Your task to perform on an android device: Do I have any events today? Image 0: 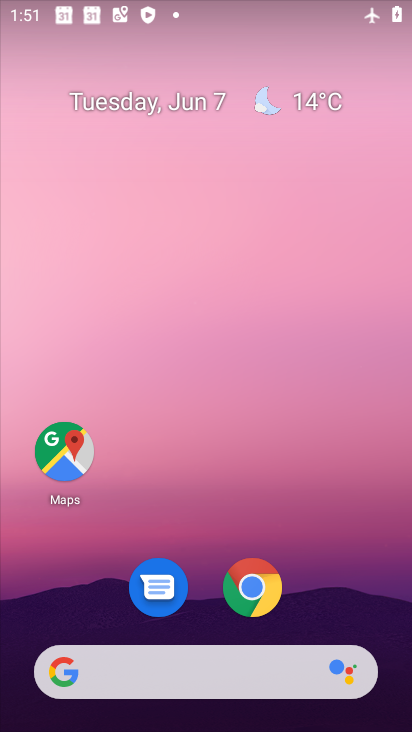
Step 0: drag from (186, 361) to (186, 276)
Your task to perform on an android device: Do I have any events today? Image 1: 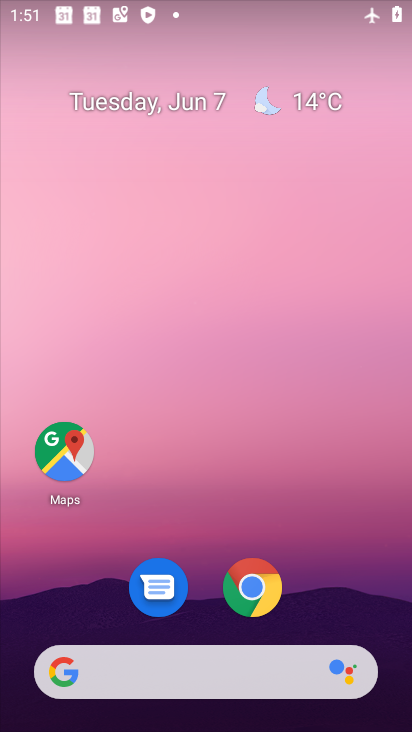
Step 1: drag from (186, 670) to (237, 171)
Your task to perform on an android device: Do I have any events today? Image 2: 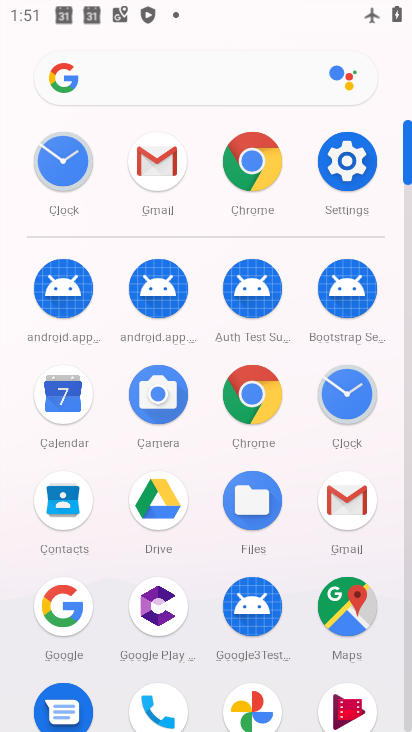
Step 2: drag from (202, 598) to (232, 162)
Your task to perform on an android device: Do I have any events today? Image 3: 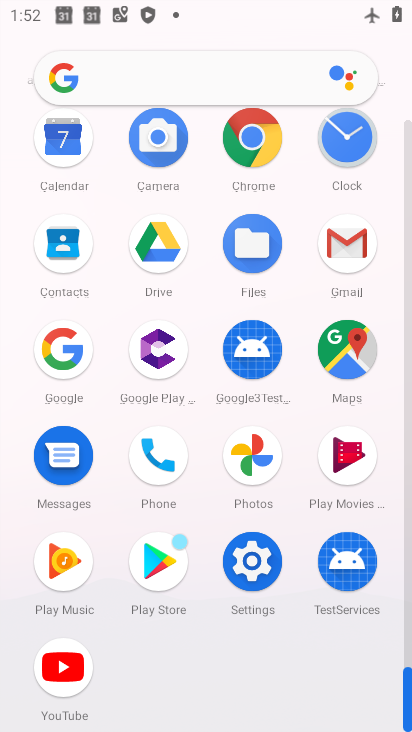
Step 3: click (60, 157)
Your task to perform on an android device: Do I have any events today? Image 4: 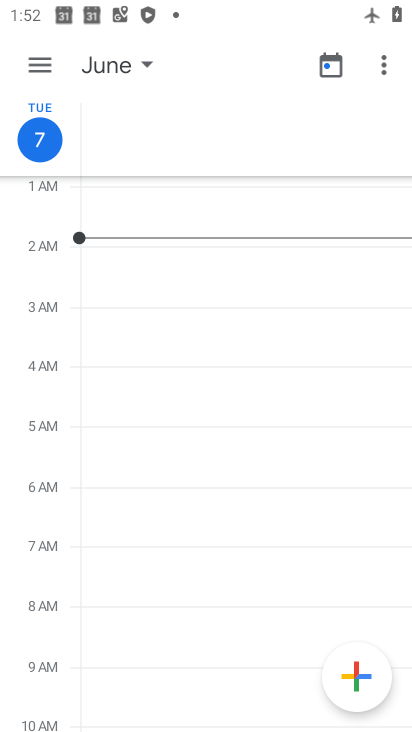
Step 4: click (136, 70)
Your task to perform on an android device: Do I have any events today? Image 5: 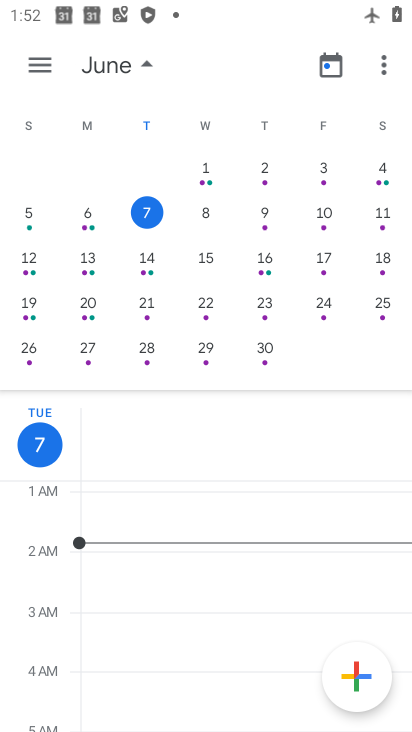
Step 5: click (46, 70)
Your task to perform on an android device: Do I have any events today? Image 6: 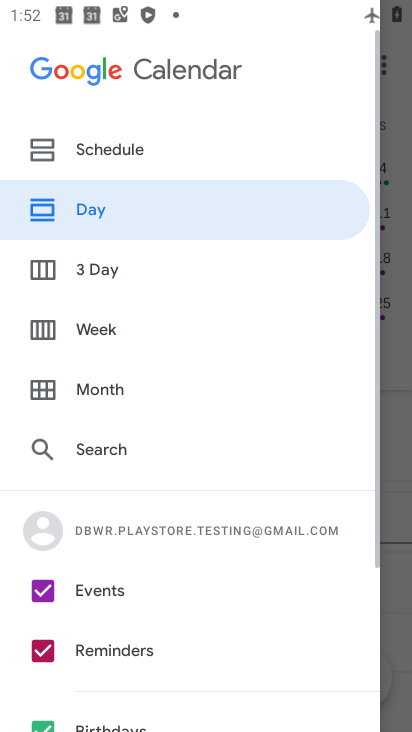
Step 6: click (149, 137)
Your task to perform on an android device: Do I have any events today? Image 7: 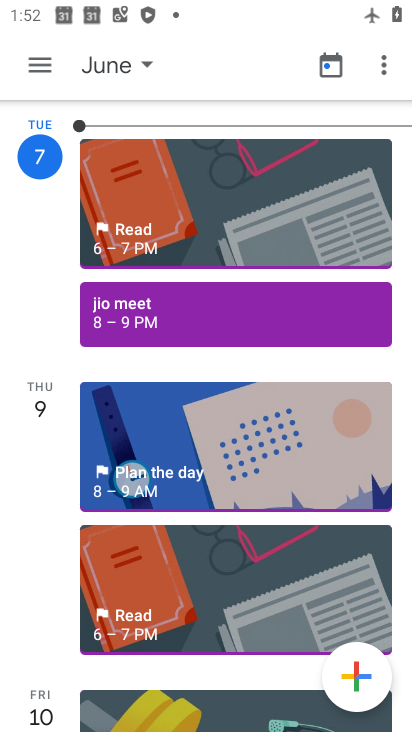
Step 7: task complete